Your task to perform on an android device: Go to Maps Image 0: 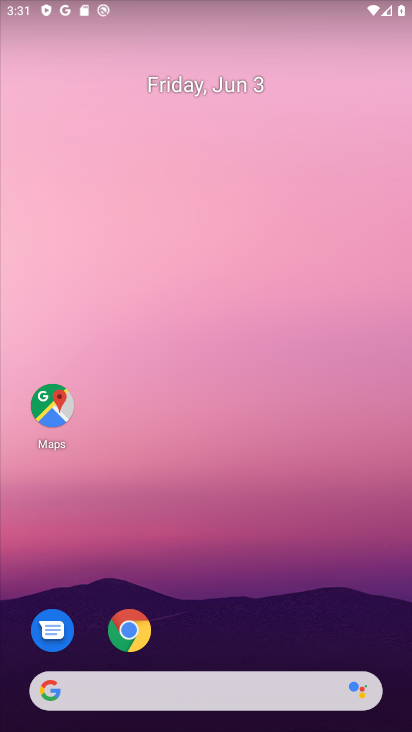
Step 0: drag from (146, 483) to (113, 58)
Your task to perform on an android device: Go to Maps Image 1: 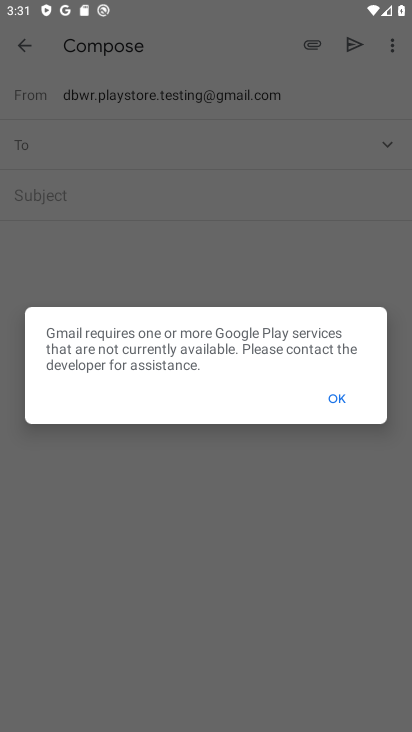
Step 1: drag from (105, 294) to (103, 149)
Your task to perform on an android device: Go to Maps Image 2: 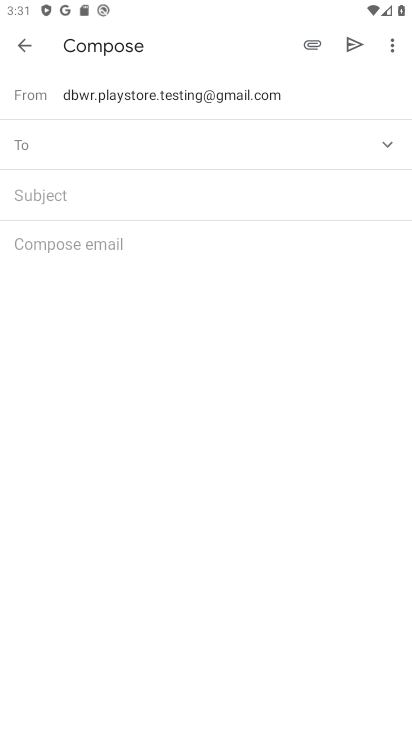
Step 2: drag from (166, 368) to (365, 559)
Your task to perform on an android device: Go to Maps Image 3: 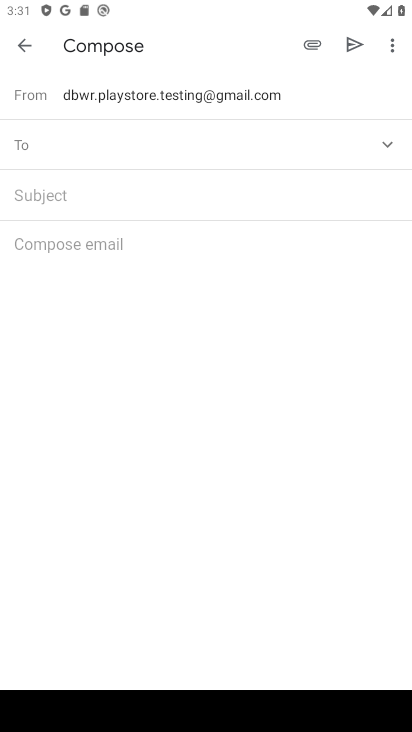
Step 3: click (16, 35)
Your task to perform on an android device: Go to Maps Image 4: 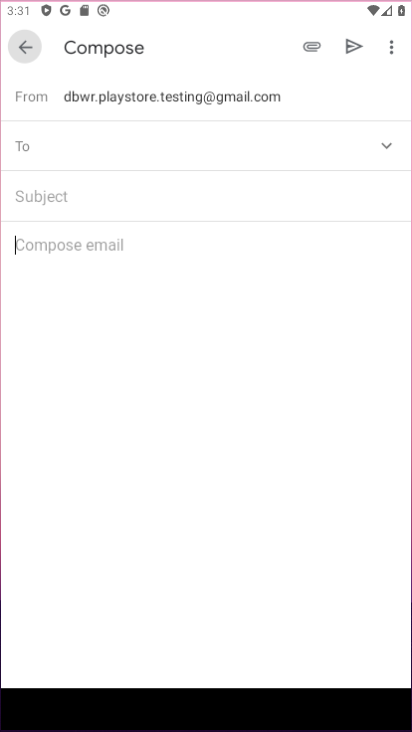
Step 4: click (16, 35)
Your task to perform on an android device: Go to Maps Image 5: 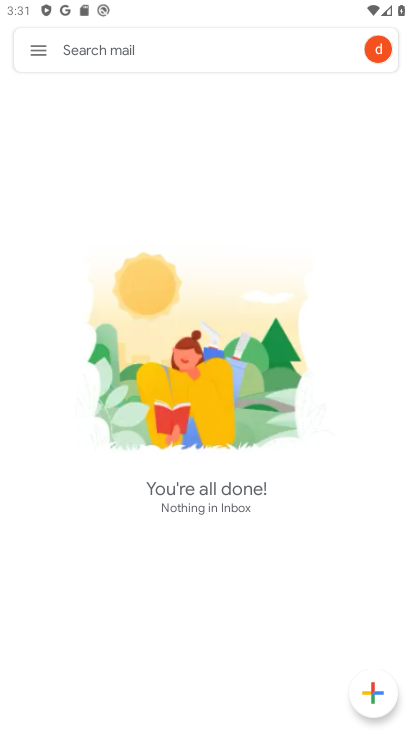
Step 5: click (24, 44)
Your task to perform on an android device: Go to Maps Image 6: 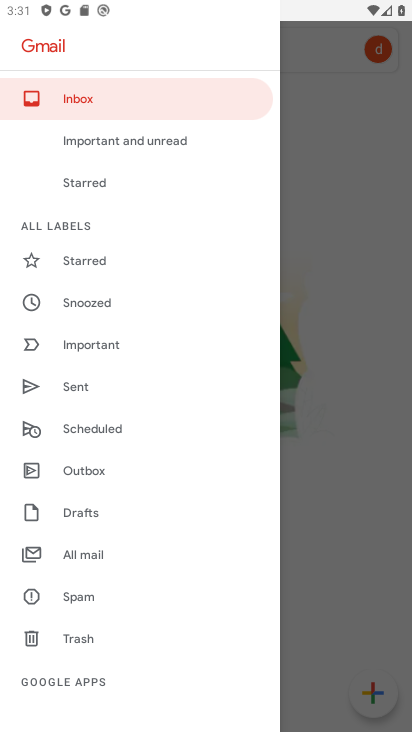
Step 6: press back button
Your task to perform on an android device: Go to Maps Image 7: 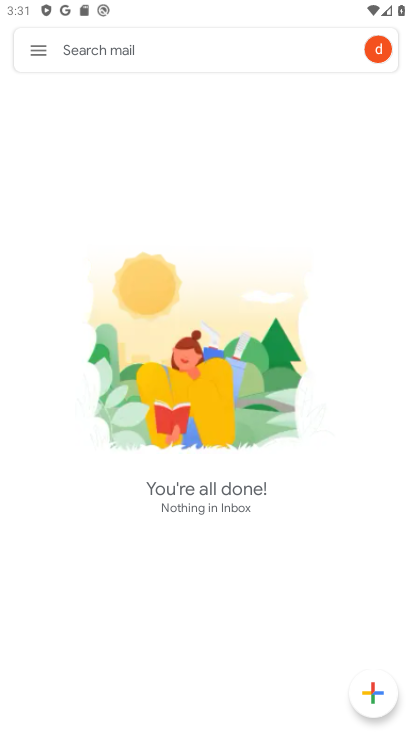
Step 7: press home button
Your task to perform on an android device: Go to Maps Image 8: 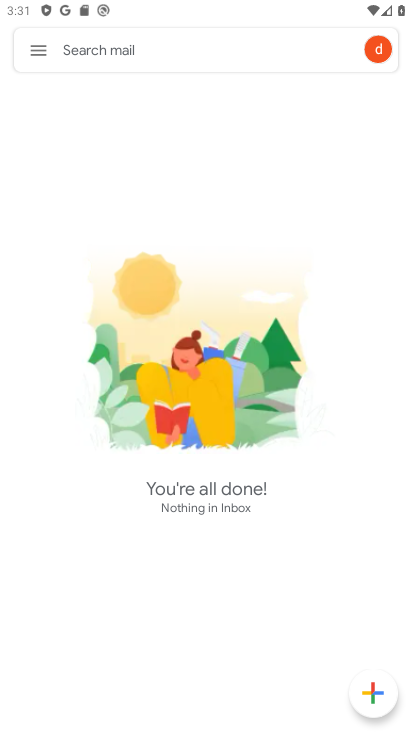
Step 8: press home button
Your task to perform on an android device: Go to Maps Image 9: 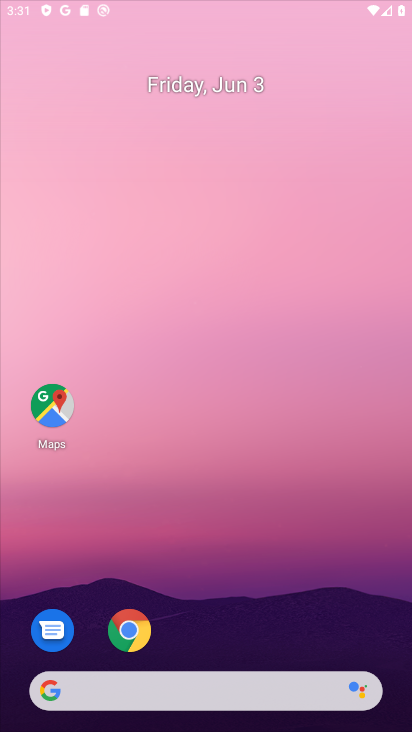
Step 9: press home button
Your task to perform on an android device: Go to Maps Image 10: 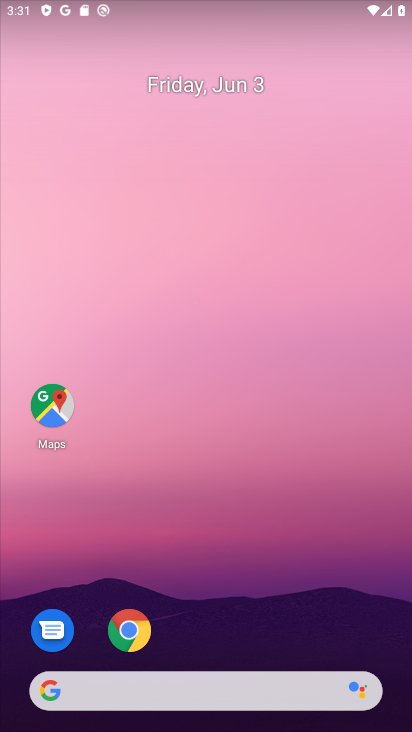
Step 10: drag from (236, 637) to (128, 19)
Your task to perform on an android device: Go to Maps Image 11: 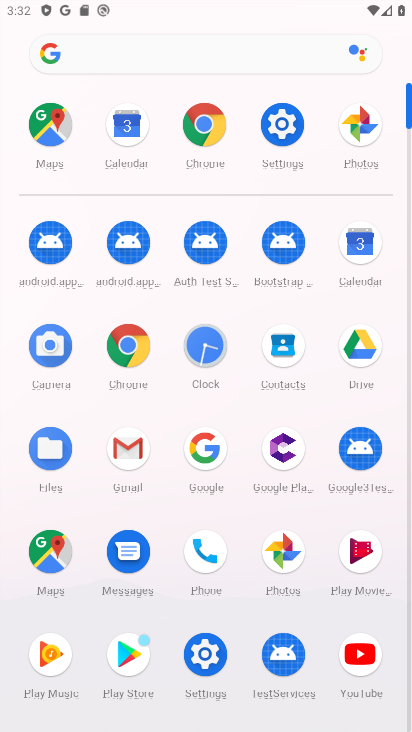
Step 11: click (51, 106)
Your task to perform on an android device: Go to Maps Image 12: 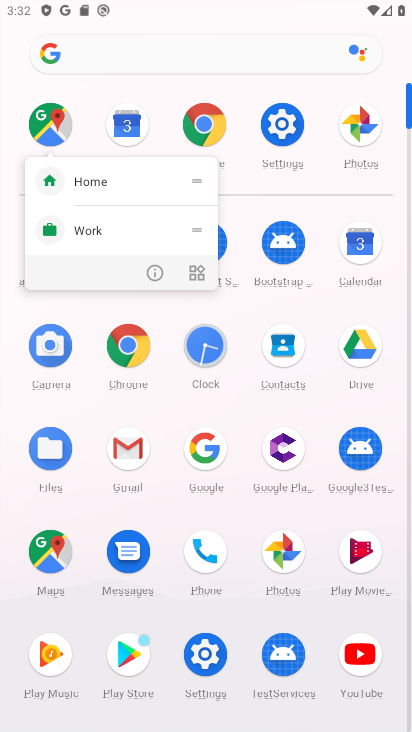
Step 12: click (51, 108)
Your task to perform on an android device: Go to Maps Image 13: 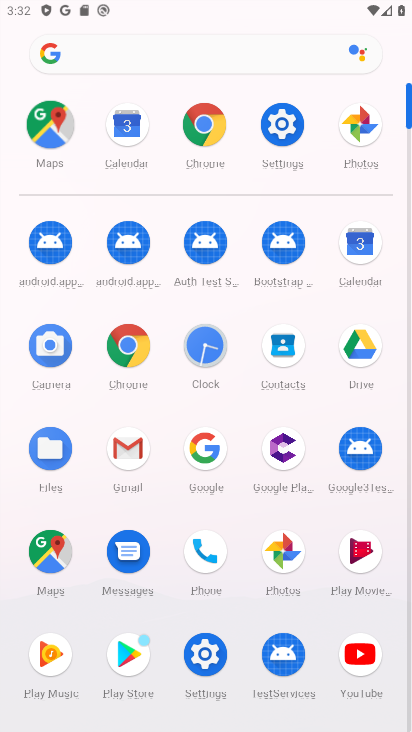
Step 13: click (37, 112)
Your task to perform on an android device: Go to Maps Image 14: 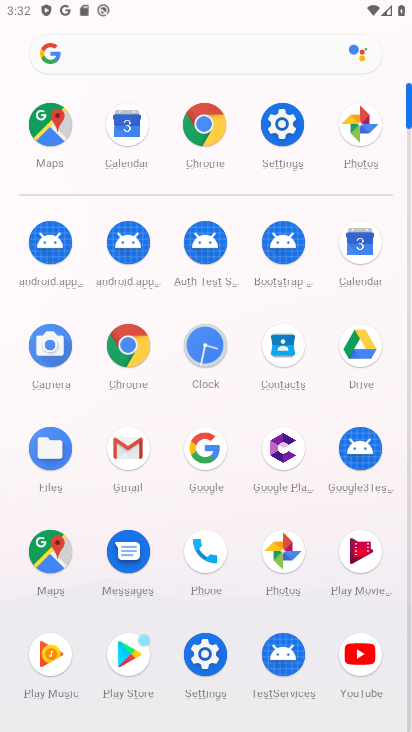
Step 14: click (45, 121)
Your task to perform on an android device: Go to Maps Image 15: 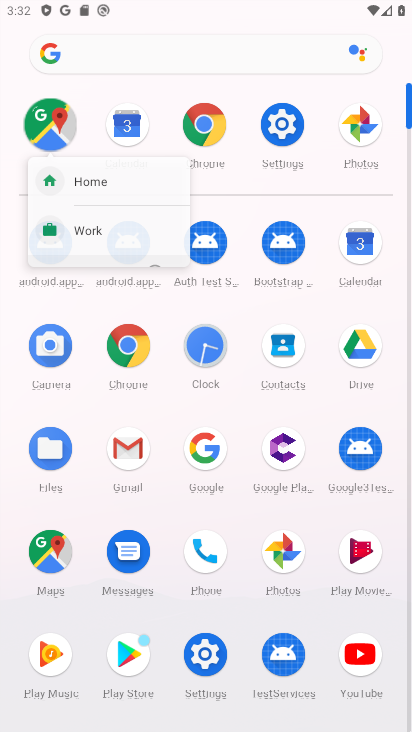
Step 15: click (33, 94)
Your task to perform on an android device: Go to Maps Image 16: 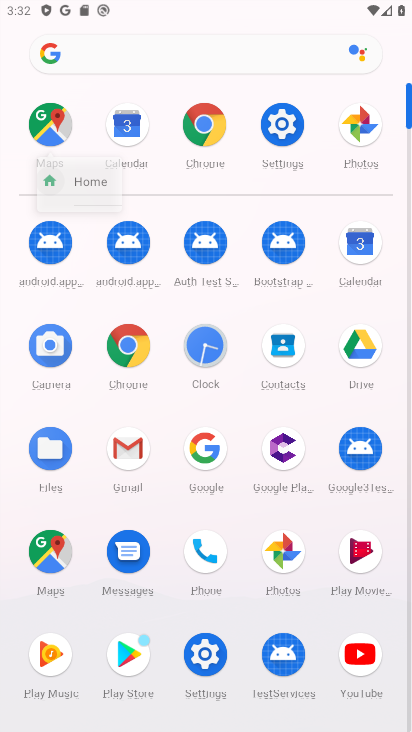
Step 16: click (41, 104)
Your task to perform on an android device: Go to Maps Image 17: 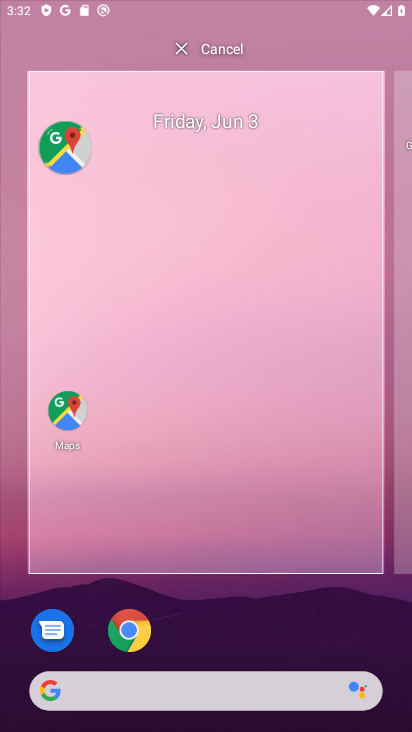
Step 17: click (59, 127)
Your task to perform on an android device: Go to Maps Image 18: 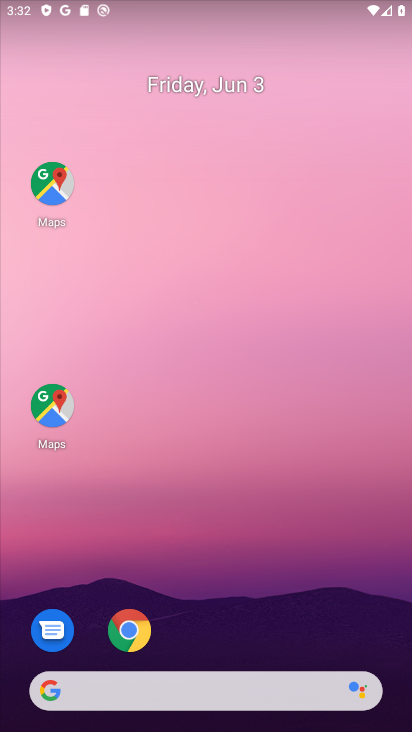
Step 18: drag from (239, 153) to (263, 26)
Your task to perform on an android device: Go to Maps Image 19: 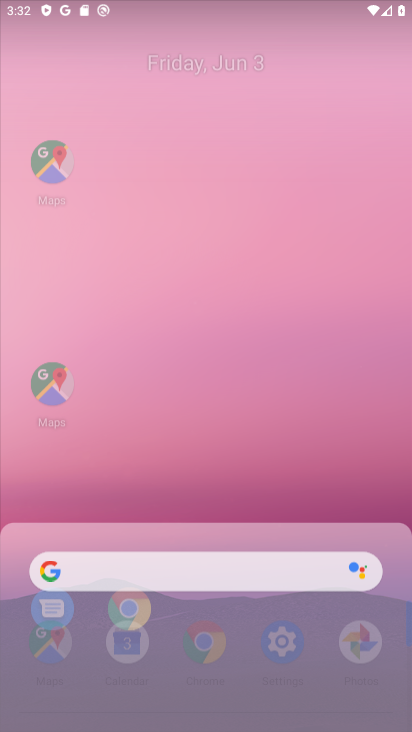
Step 19: drag from (309, 451) to (264, 29)
Your task to perform on an android device: Go to Maps Image 20: 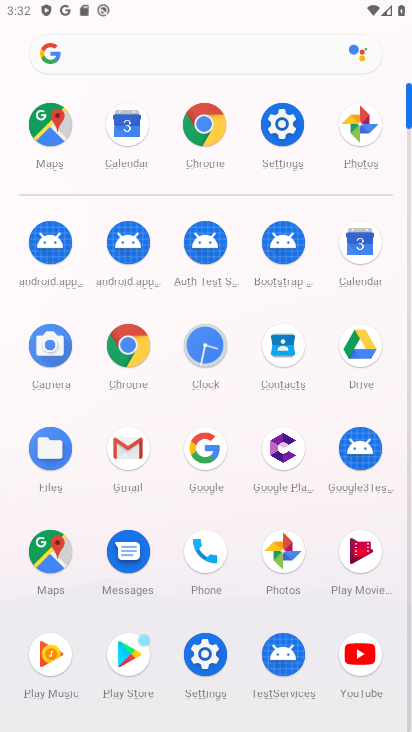
Step 20: click (42, 113)
Your task to perform on an android device: Go to Maps Image 21: 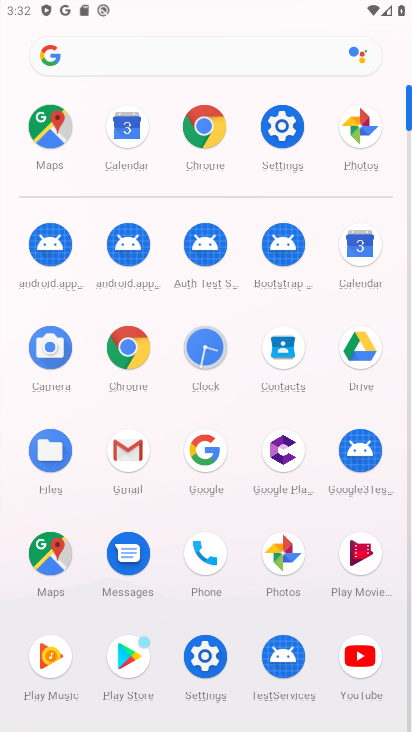
Step 21: click (45, 121)
Your task to perform on an android device: Go to Maps Image 22: 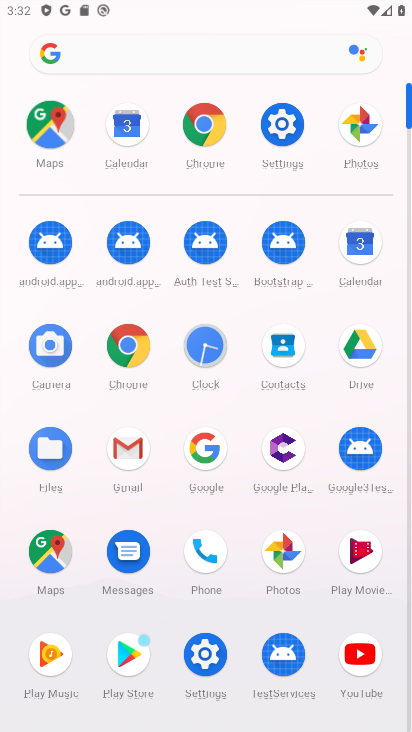
Step 22: click (38, 119)
Your task to perform on an android device: Go to Maps Image 23: 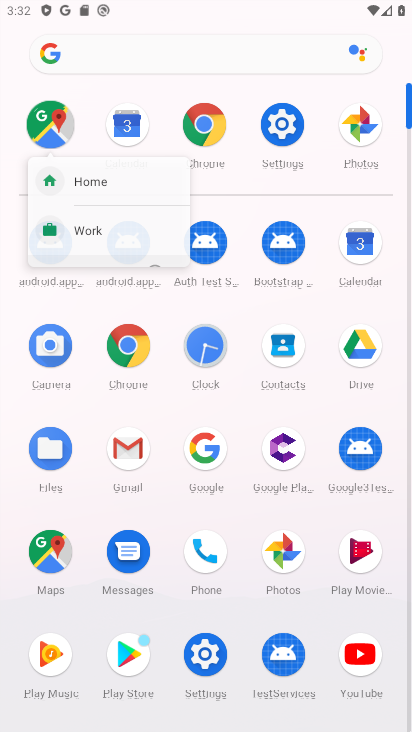
Step 23: click (37, 119)
Your task to perform on an android device: Go to Maps Image 24: 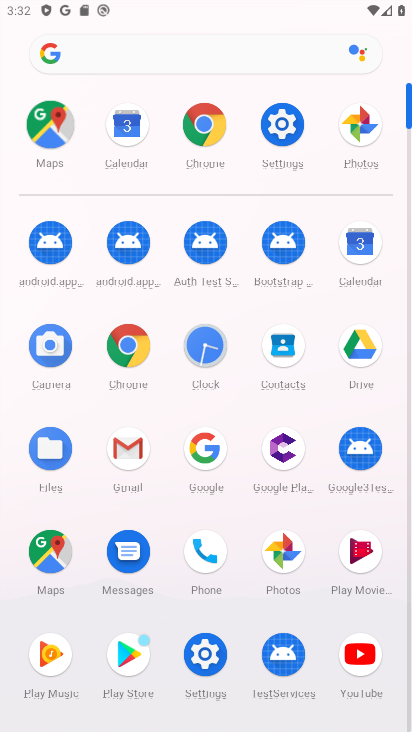
Step 24: click (35, 116)
Your task to perform on an android device: Go to Maps Image 25: 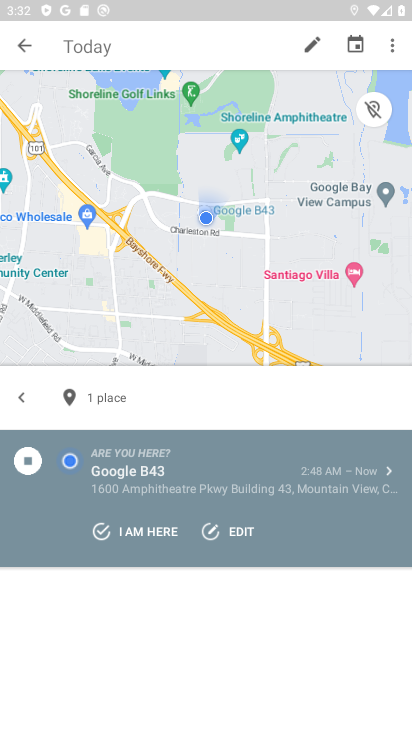
Step 25: task complete